Your task to perform on an android device: Turn on the flashlight Image 0: 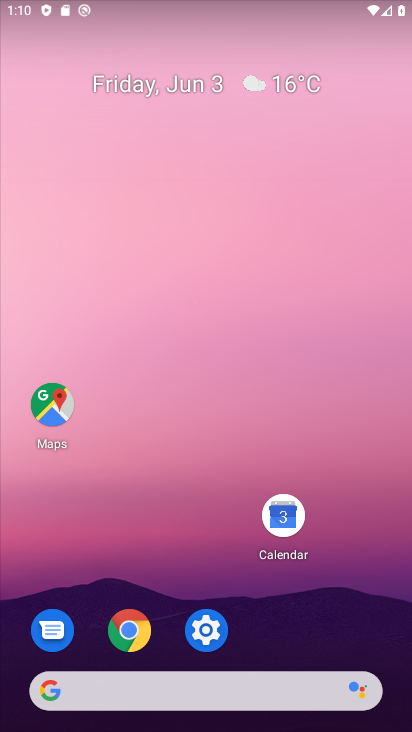
Step 0: drag from (217, 708) to (136, 229)
Your task to perform on an android device: Turn on the flashlight Image 1: 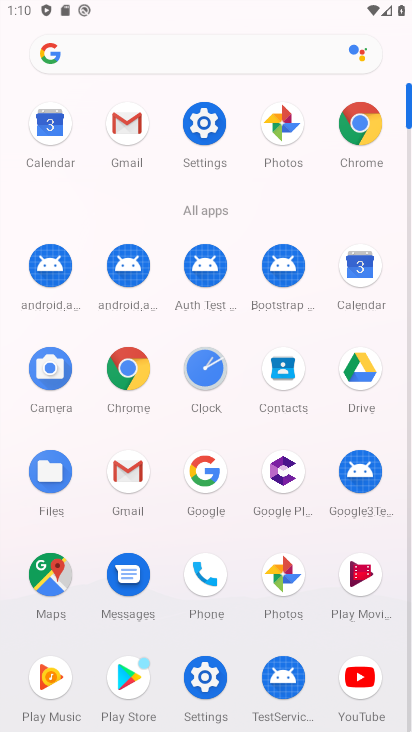
Step 1: click (180, 123)
Your task to perform on an android device: Turn on the flashlight Image 2: 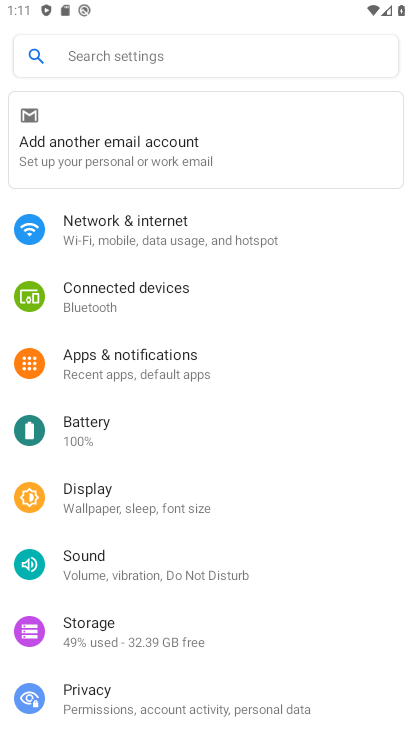
Step 2: click (127, 55)
Your task to perform on an android device: Turn on the flashlight Image 3: 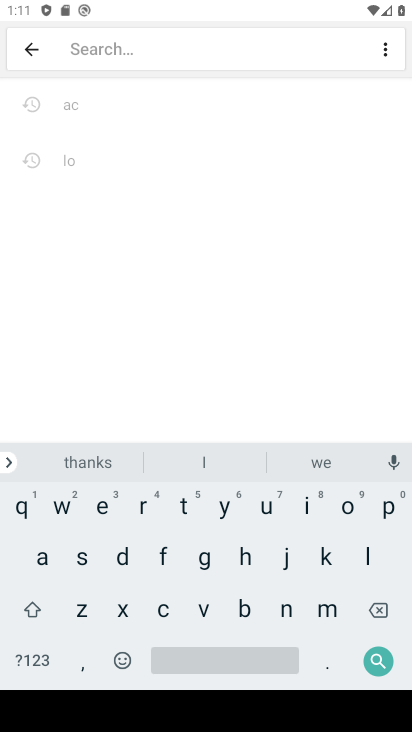
Step 3: click (158, 556)
Your task to perform on an android device: Turn on the flashlight Image 4: 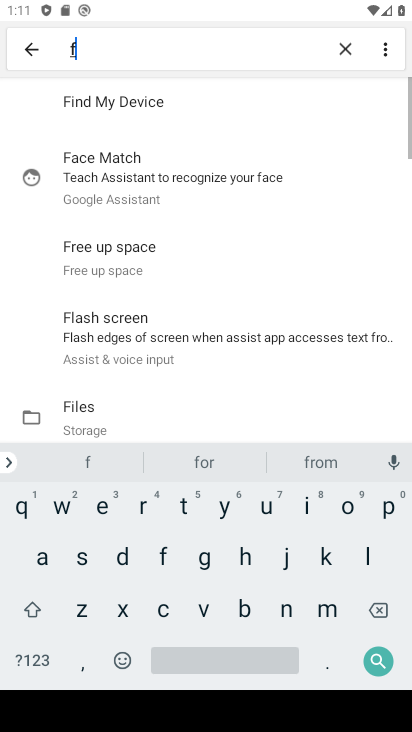
Step 4: click (365, 556)
Your task to perform on an android device: Turn on the flashlight Image 5: 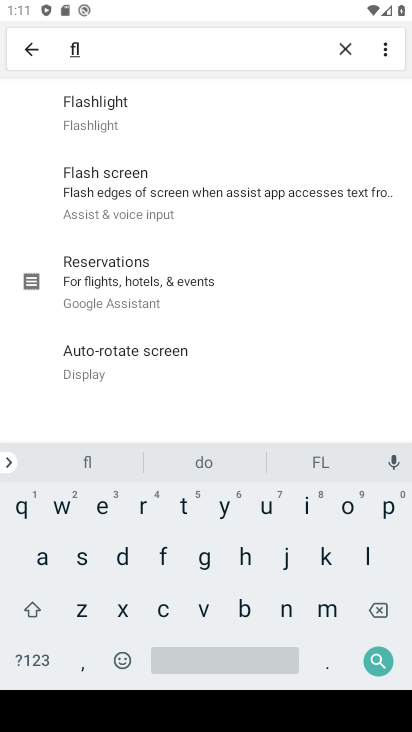
Step 5: click (109, 122)
Your task to perform on an android device: Turn on the flashlight Image 6: 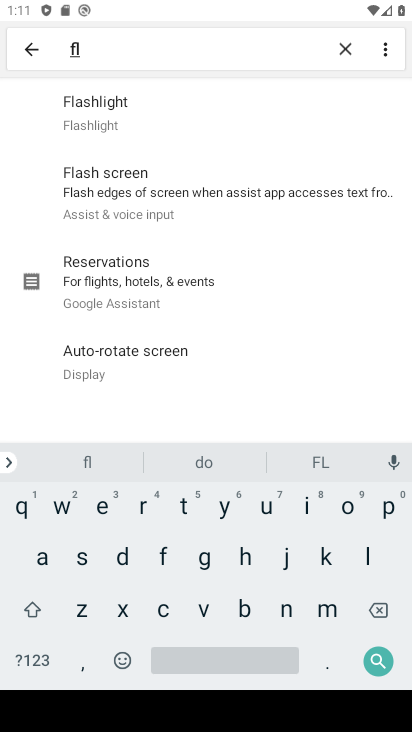
Step 6: click (126, 111)
Your task to perform on an android device: Turn on the flashlight Image 7: 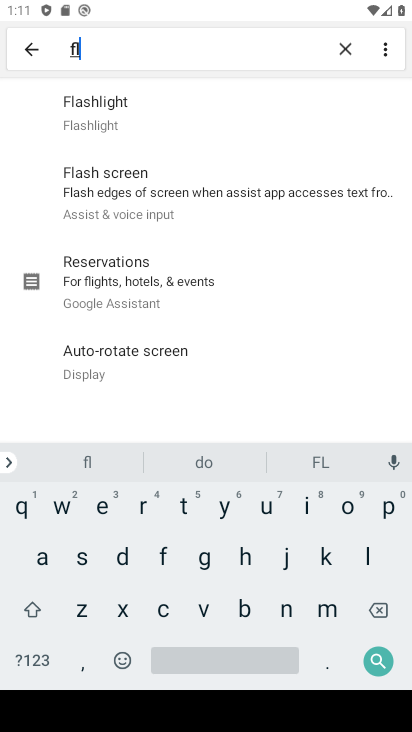
Step 7: task complete